Your task to perform on an android device: turn off improve location accuracy Image 0: 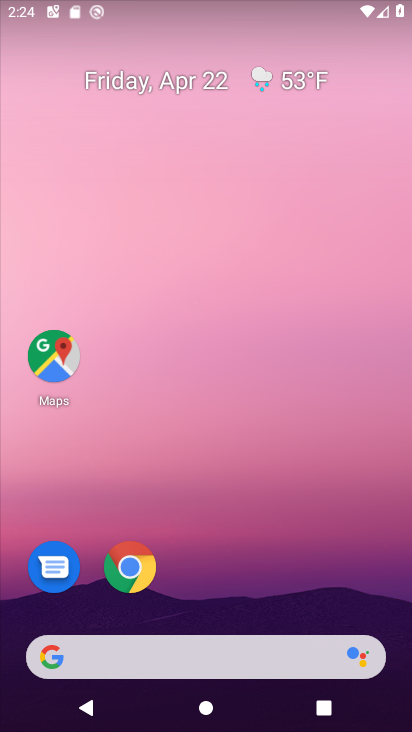
Step 0: drag from (282, 607) to (307, 104)
Your task to perform on an android device: turn off improve location accuracy Image 1: 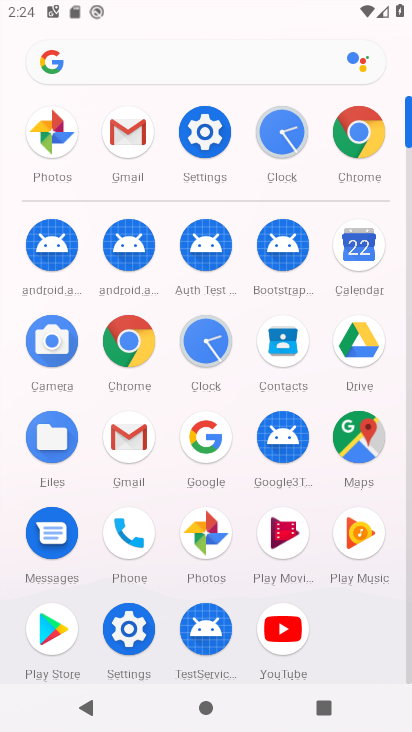
Step 1: click (204, 128)
Your task to perform on an android device: turn off improve location accuracy Image 2: 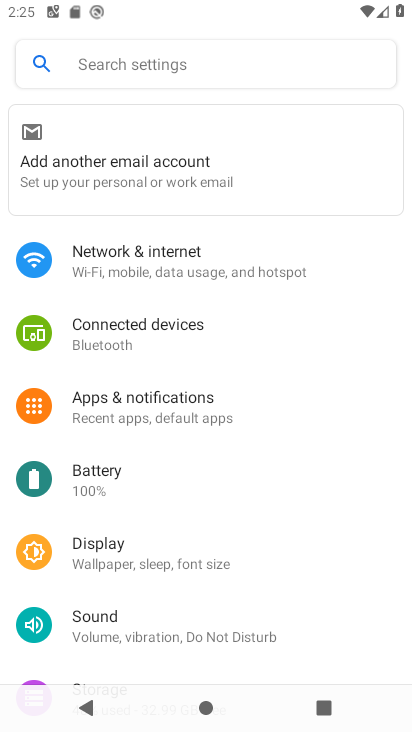
Step 2: drag from (251, 595) to (322, 215)
Your task to perform on an android device: turn off improve location accuracy Image 3: 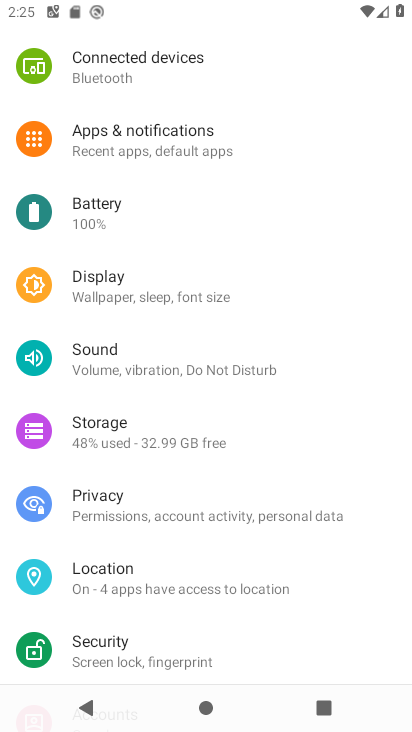
Step 3: click (206, 568)
Your task to perform on an android device: turn off improve location accuracy Image 4: 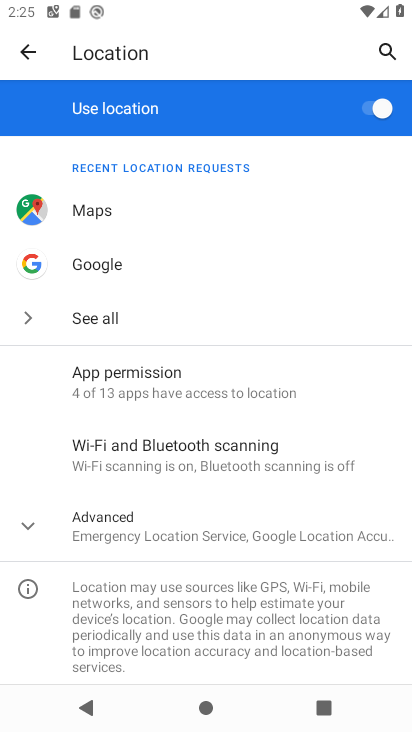
Step 4: click (27, 518)
Your task to perform on an android device: turn off improve location accuracy Image 5: 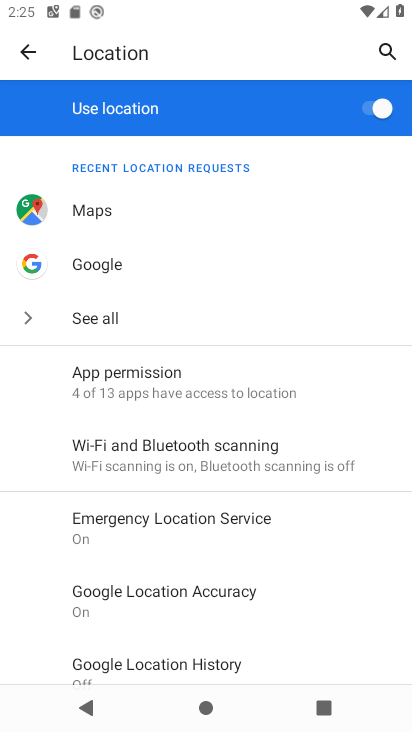
Step 5: drag from (305, 592) to (325, 280)
Your task to perform on an android device: turn off improve location accuracy Image 6: 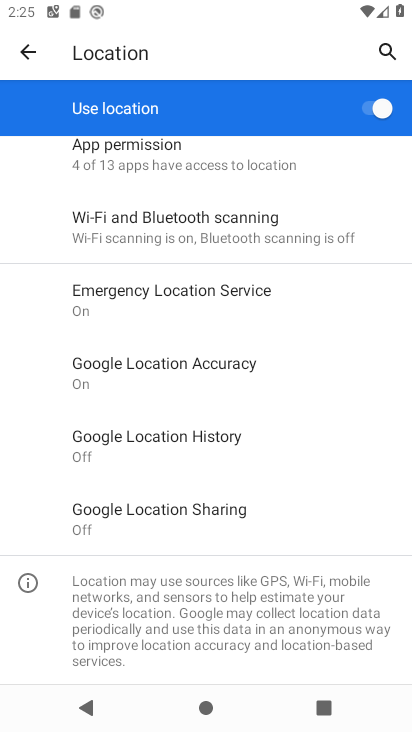
Step 6: click (233, 359)
Your task to perform on an android device: turn off improve location accuracy Image 7: 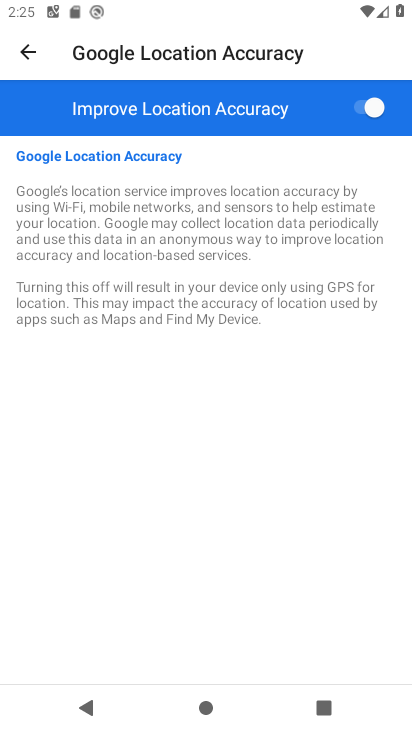
Step 7: click (360, 100)
Your task to perform on an android device: turn off improve location accuracy Image 8: 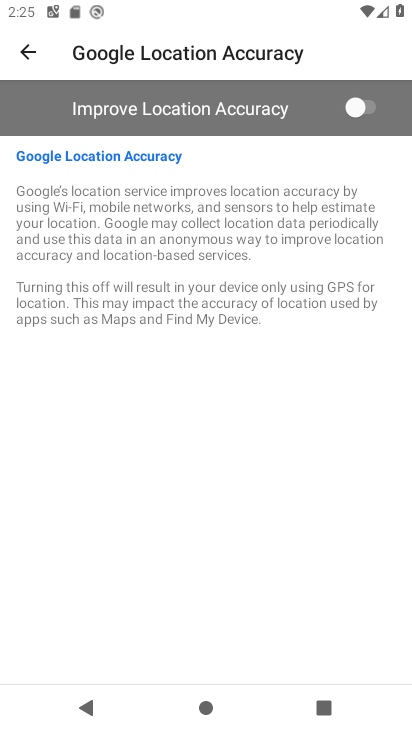
Step 8: task complete